Your task to perform on an android device: change the clock display to show seconds Image 0: 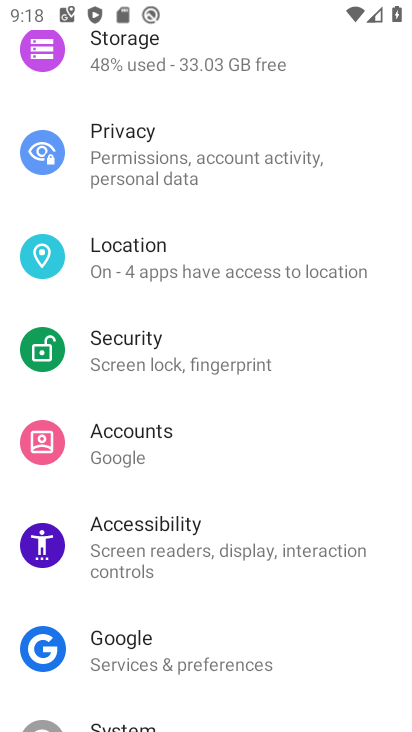
Step 0: press home button
Your task to perform on an android device: change the clock display to show seconds Image 1: 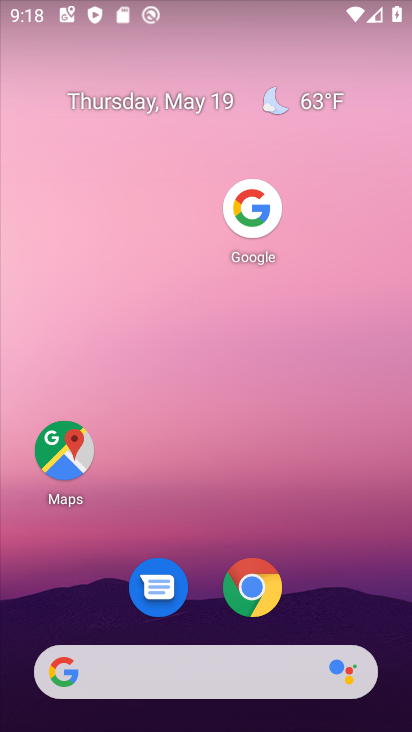
Step 1: drag from (217, 633) to (272, 52)
Your task to perform on an android device: change the clock display to show seconds Image 2: 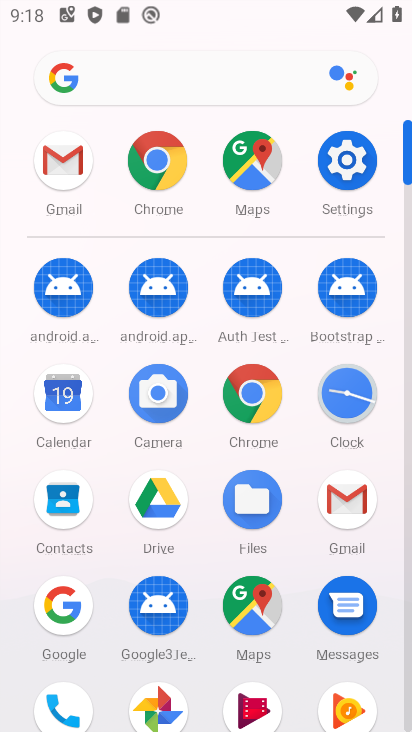
Step 2: click (351, 400)
Your task to perform on an android device: change the clock display to show seconds Image 3: 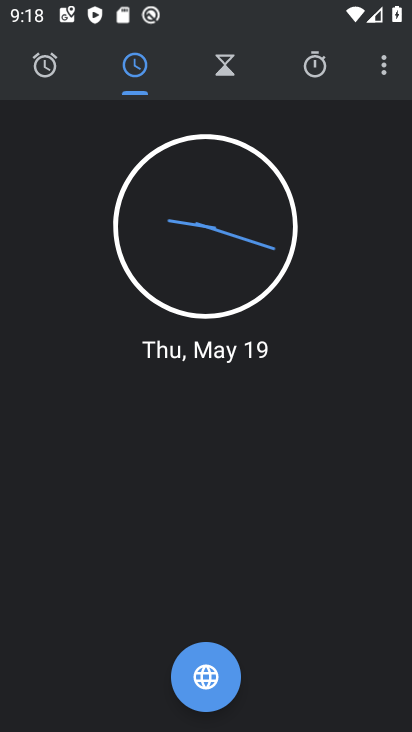
Step 3: click (381, 58)
Your task to perform on an android device: change the clock display to show seconds Image 4: 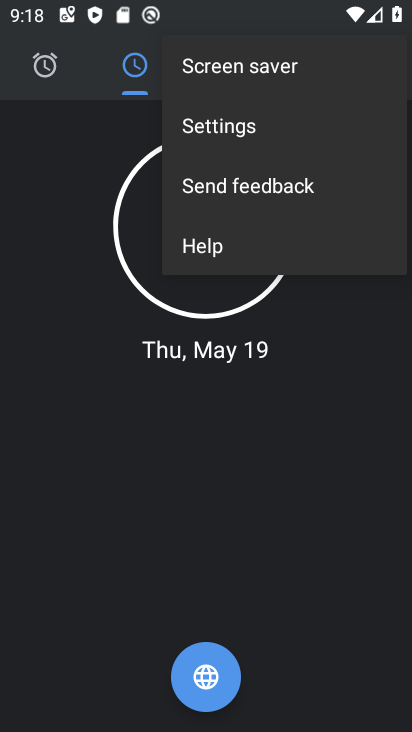
Step 4: click (242, 134)
Your task to perform on an android device: change the clock display to show seconds Image 5: 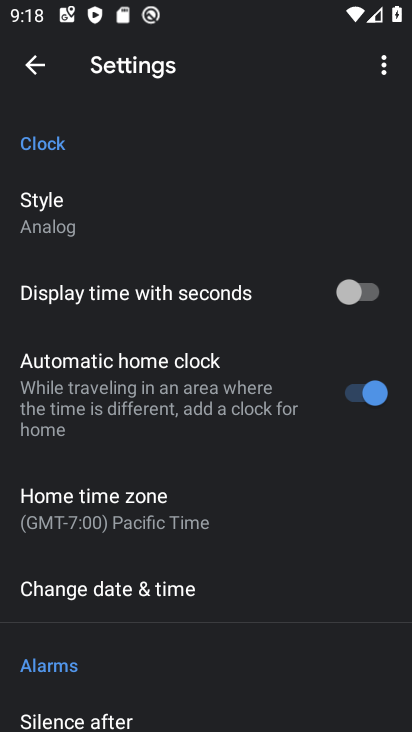
Step 5: click (351, 301)
Your task to perform on an android device: change the clock display to show seconds Image 6: 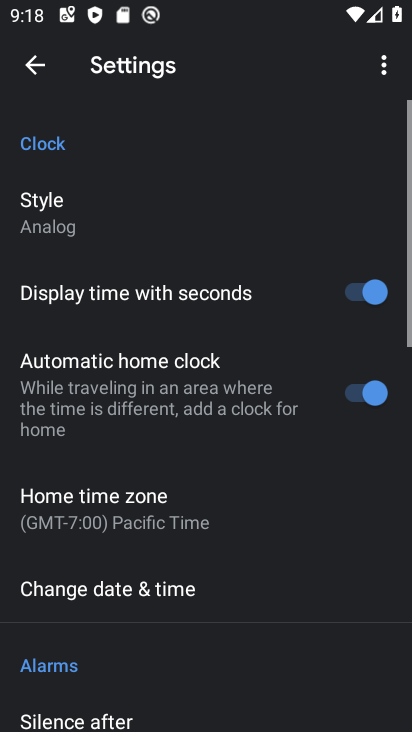
Step 6: task complete